Your task to perform on an android device: Go to privacy settings Image 0: 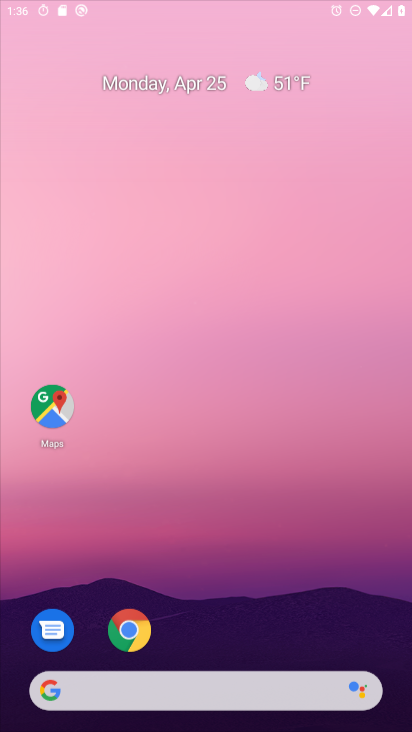
Step 0: drag from (287, 75) to (255, 127)
Your task to perform on an android device: Go to privacy settings Image 1: 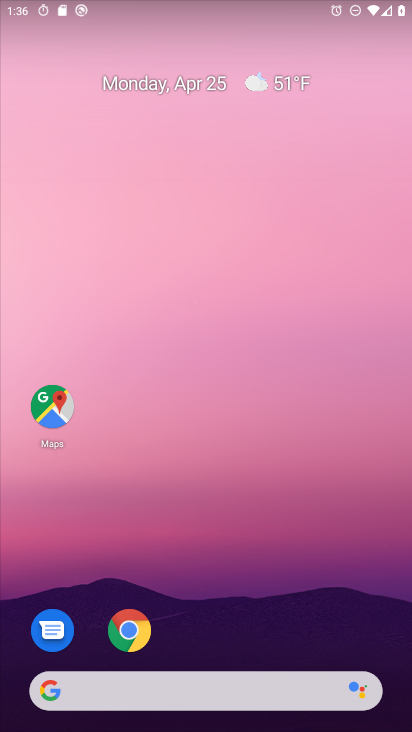
Step 1: drag from (325, 363) to (328, 152)
Your task to perform on an android device: Go to privacy settings Image 2: 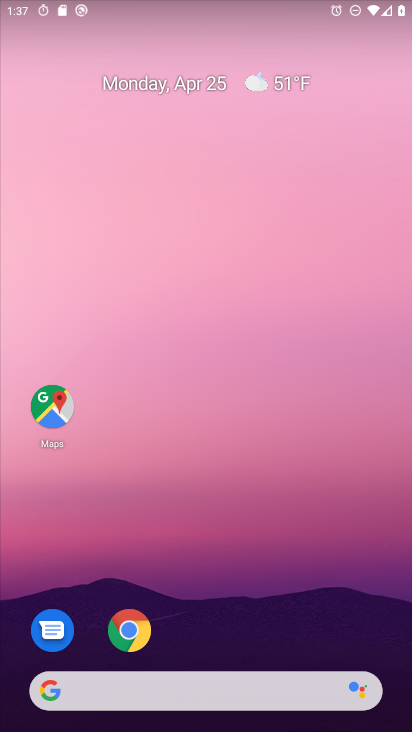
Step 2: click (226, 204)
Your task to perform on an android device: Go to privacy settings Image 3: 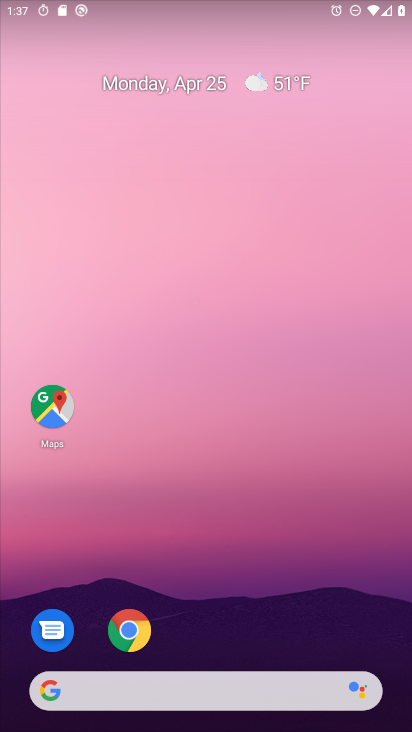
Step 3: drag from (215, 610) to (266, 177)
Your task to perform on an android device: Go to privacy settings Image 4: 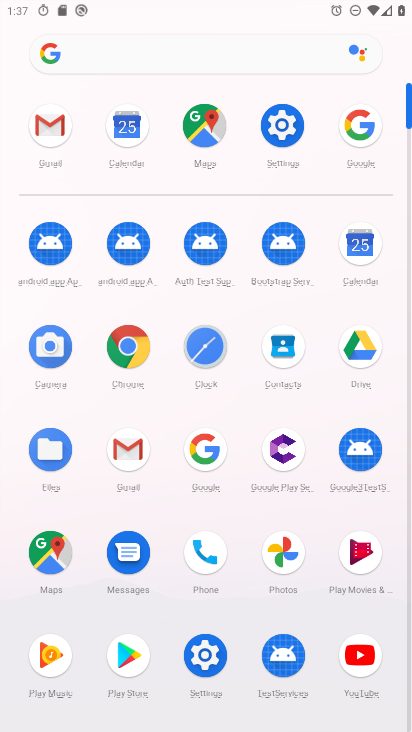
Step 4: click (212, 663)
Your task to perform on an android device: Go to privacy settings Image 5: 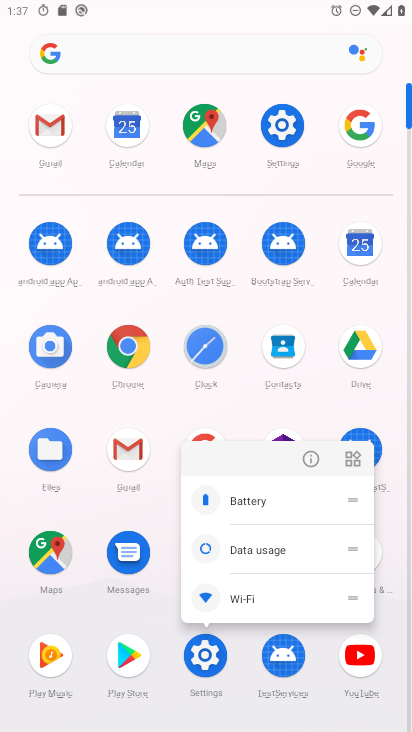
Step 5: click (313, 461)
Your task to perform on an android device: Go to privacy settings Image 6: 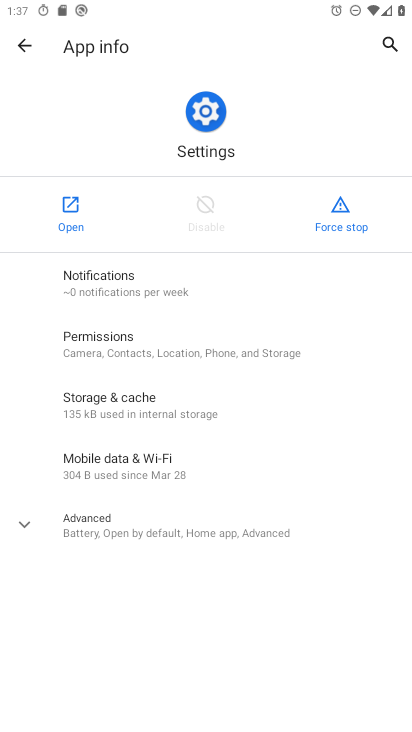
Step 6: click (76, 203)
Your task to perform on an android device: Go to privacy settings Image 7: 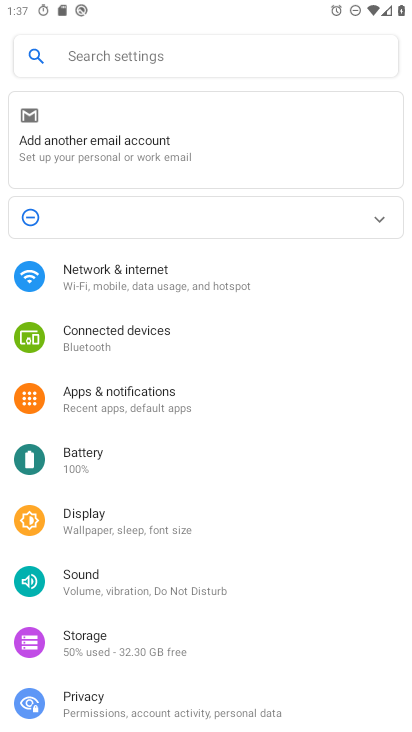
Step 7: drag from (169, 618) to (250, 132)
Your task to perform on an android device: Go to privacy settings Image 8: 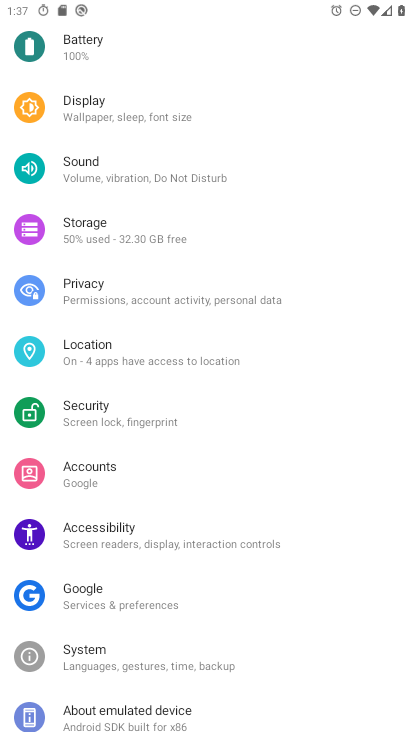
Step 8: click (122, 281)
Your task to perform on an android device: Go to privacy settings Image 9: 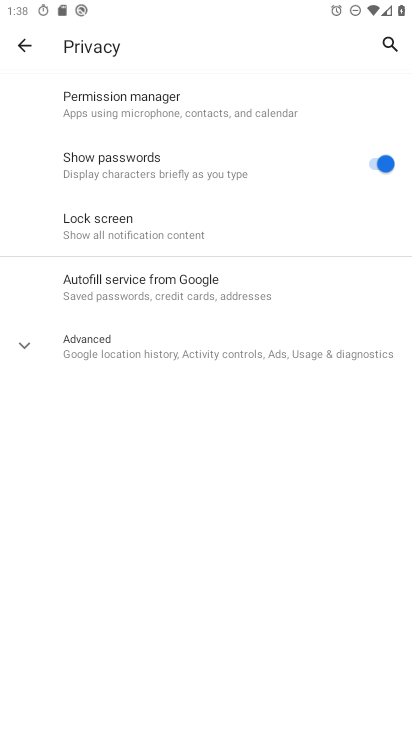
Step 9: click (129, 347)
Your task to perform on an android device: Go to privacy settings Image 10: 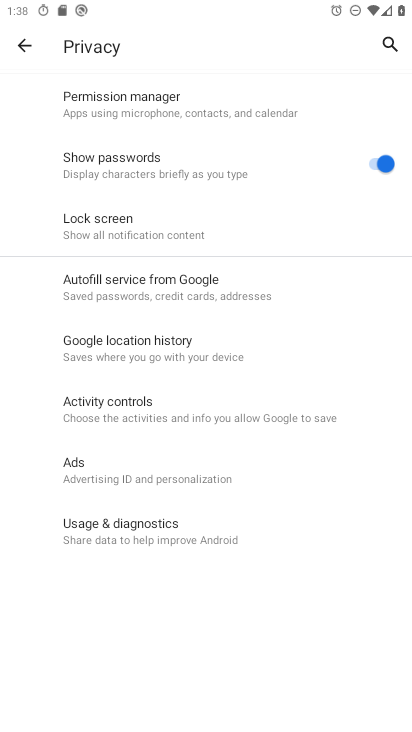
Step 10: task complete